Your task to perform on an android device: turn on translation in the chrome app Image 0: 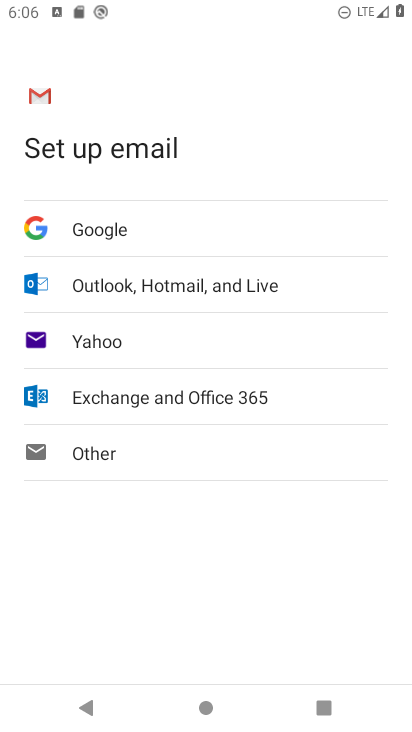
Step 0: press home button
Your task to perform on an android device: turn on translation in the chrome app Image 1: 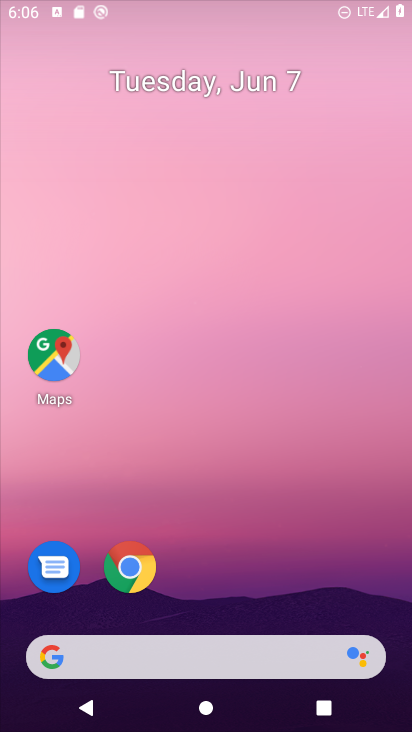
Step 1: drag from (293, 677) to (381, 85)
Your task to perform on an android device: turn on translation in the chrome app Image 2: 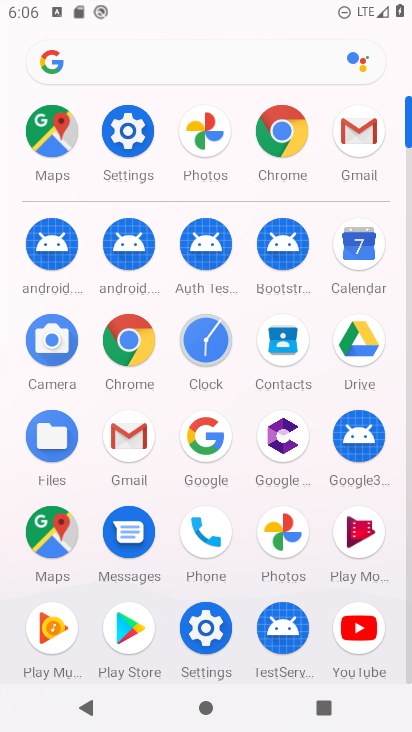
Step 2: click (134, 340)
Your task to perform on an android device: turn on translation in the chrome app Image 3: 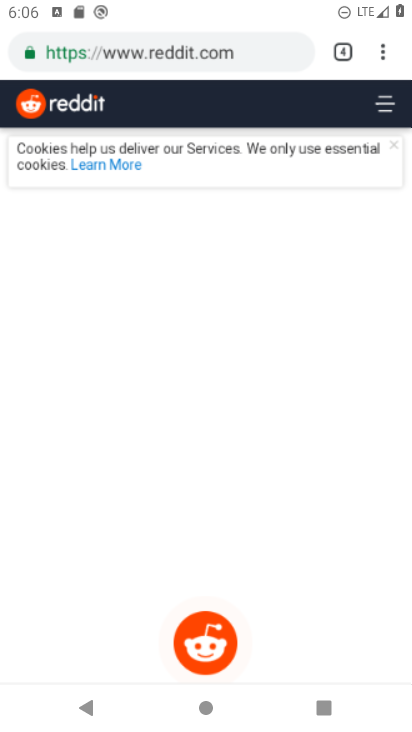
Step 3: click (382, 49)
Your task to perform on an android device: turn on translation in the chrome app Image 4: 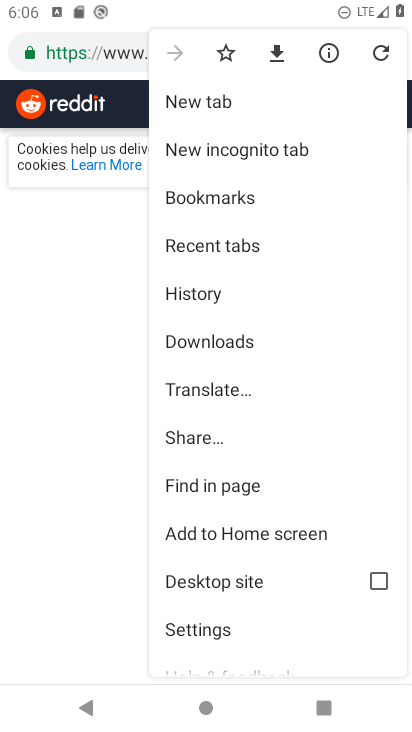
Step 4: click (178, 631)
Your task to perform on an android device: turn on translation in the chrome app Image 5: 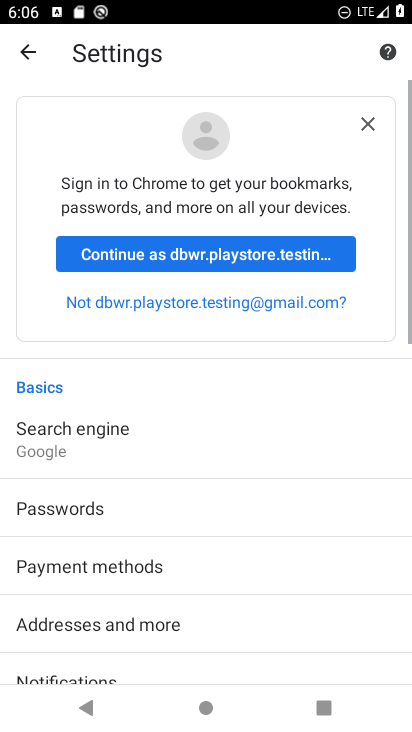
Step 5: drag from (194, 592) to (223, 242)
Your task to perform on an android device: turn on translation in the chrome app Image 6: 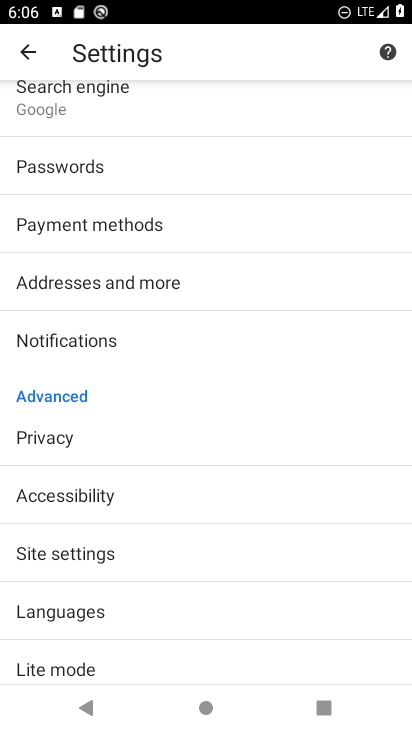
Step 6: click (108, 621)
Your task to perform on an android device: turn on translation in the chrome app Image 7: 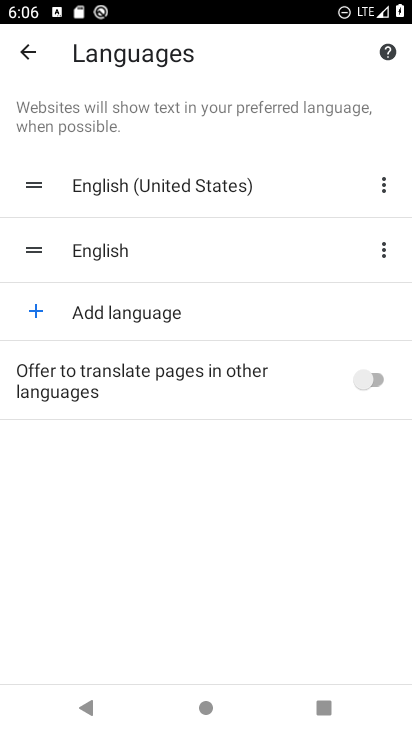
Step 7: click (372, 374)
Your task to perform on an android device: turn on translation in the chrome app Image 8: 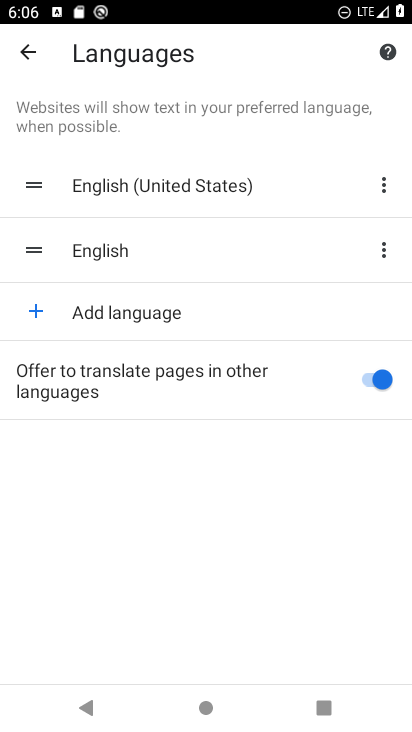
Step 8: task complete